Your task to perform on an android device: clear history in the chrome app Image 0: 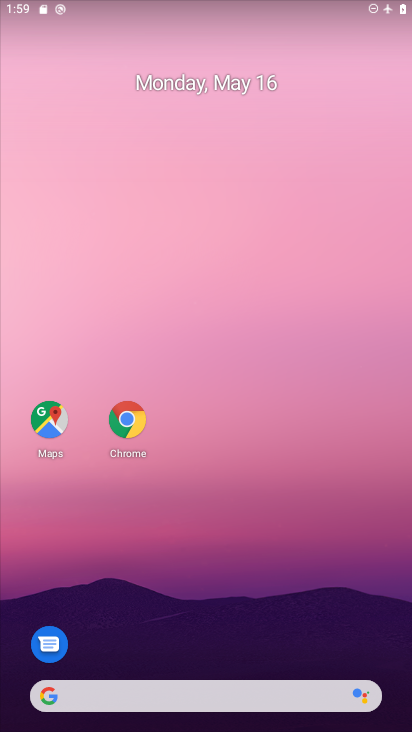
Step 0: drag from (224, 484) to (314, 76)
Your task to perform on an android device: clear history in the chrome app Image 1: 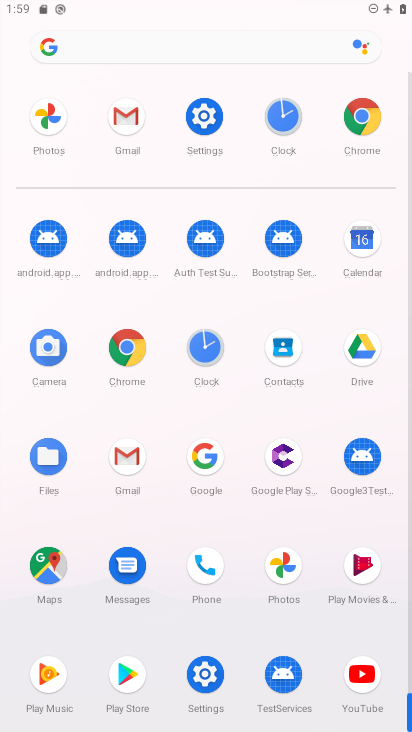
Step 1: click (131, 346)
Your task to perform on an android device: clear history in the chrome app Image 2: 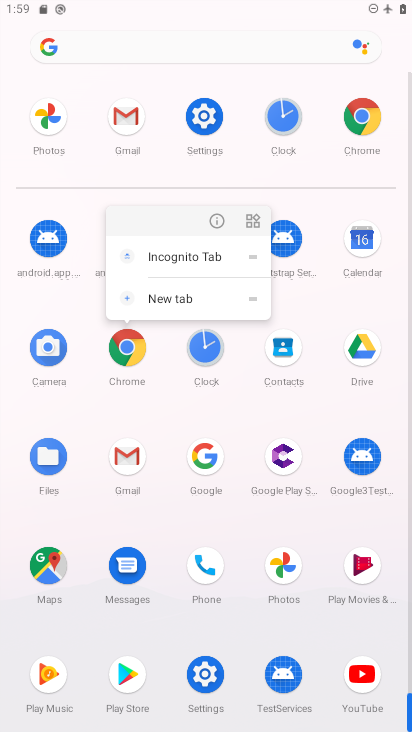
Step 2: click (218, 226)
Your task to perform on an android device: clear history in the chrome app Image 3: 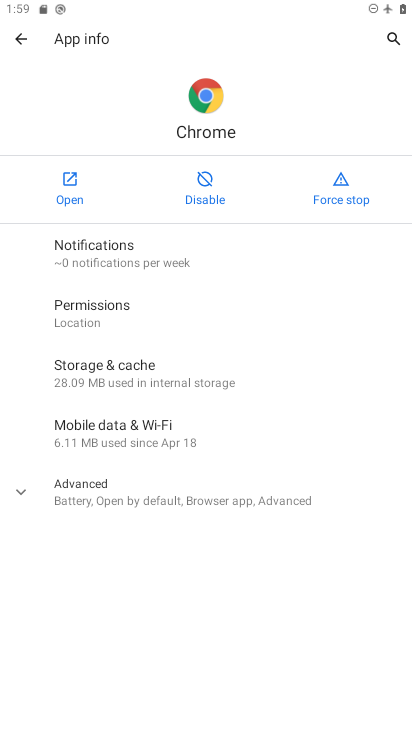
Step 3: click (35, 192)
Your task to perform on an android device: clear history in the chrome app Image 4: 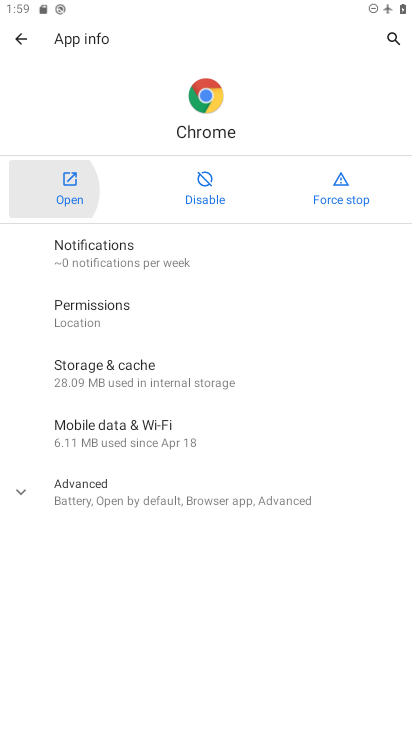
Step 4: click (53, 193)
Your task to perform on an android device: clear history in the chrome app Image 5: 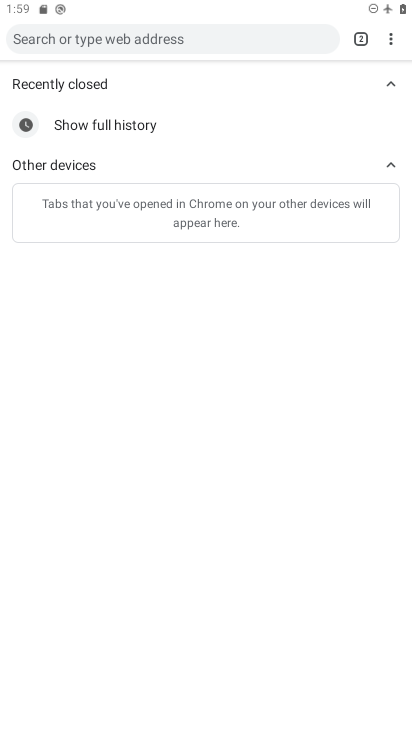
Step 5: click (392, 42)
Your task to perform on an android device: clear history in the chrome app Image 6: 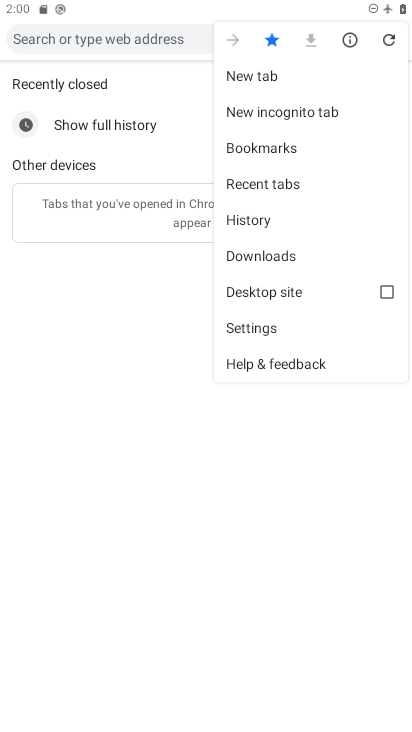
Step 6: click (267, 216)
Your task to perform on an android device: clear history in the chrome app Image 7: 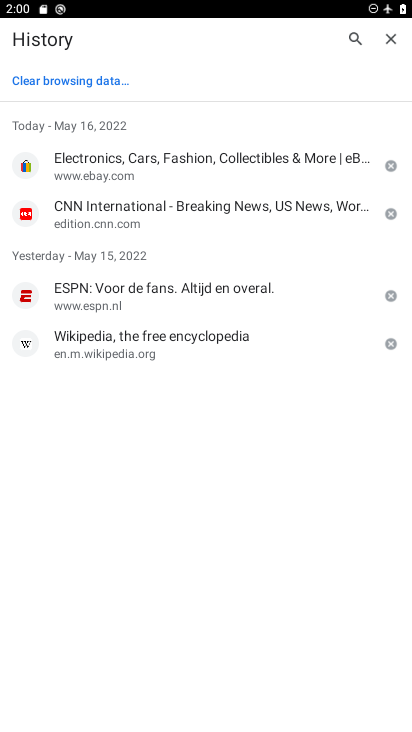
Step 7: click (24, 87)
Your task to perform on an android device: clear history in the chrome app Image 8: 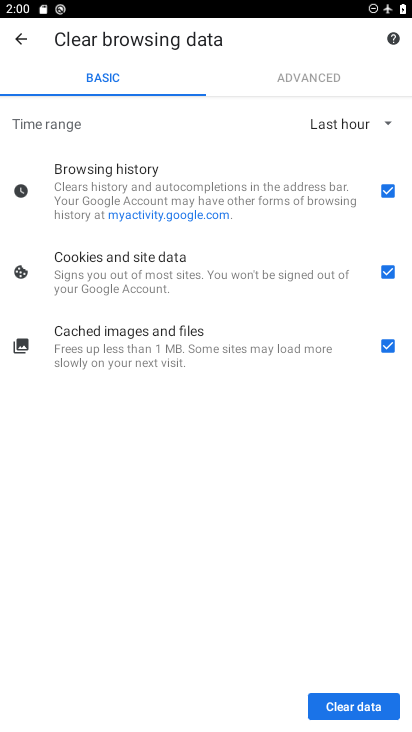
Step 8: click (347, 707)
Your task to perform on an android device: clear history in the chrome app Image 9: 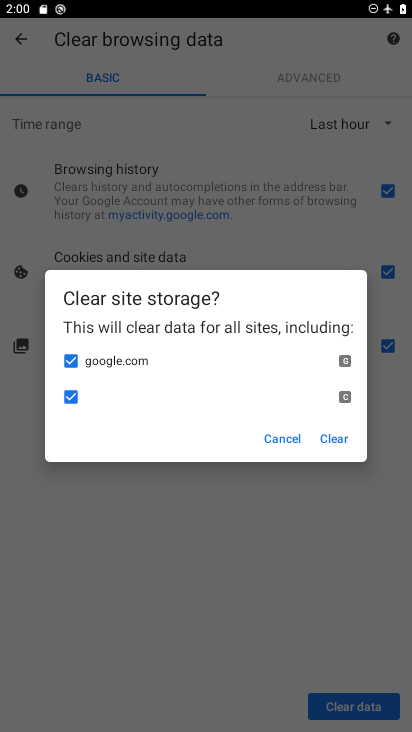
Step 9: click (331, 431)
Your task to perform on an android device: clear history in the chrome app Image 10: 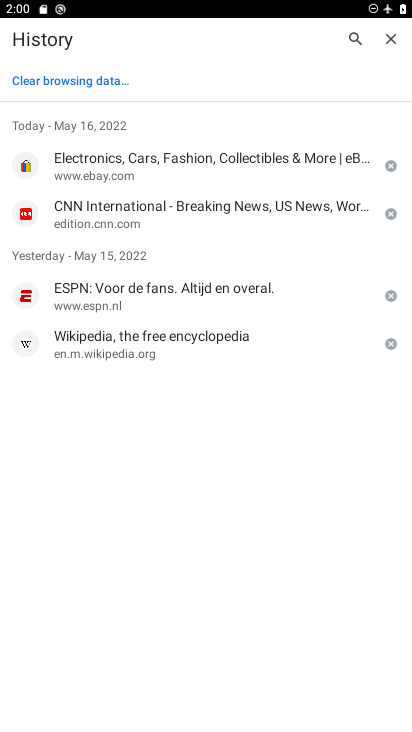
Step 10: task complete